Your task to perform on an android device: Go to notification settings Image 0: 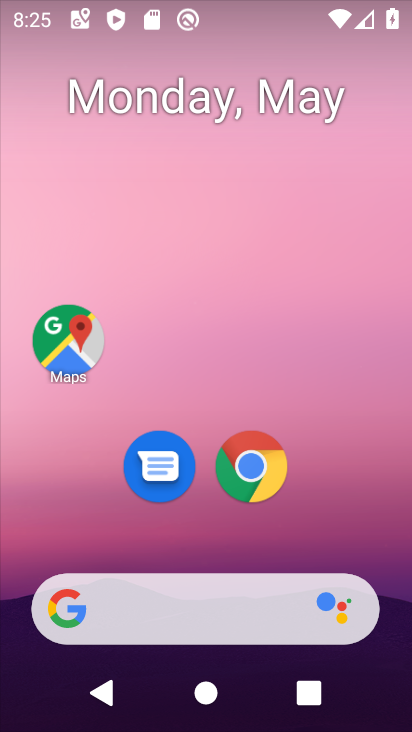
Step 0: press home button
Your task to perform on an android device: Go to notification settings Image 1: 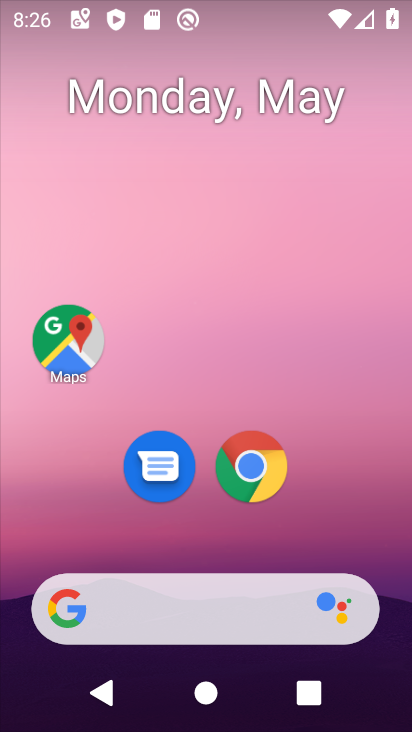
Step 1: drag from (234, 643) to (292, 153)
Your task to perform on an android device: Go to notification settings Image 2: 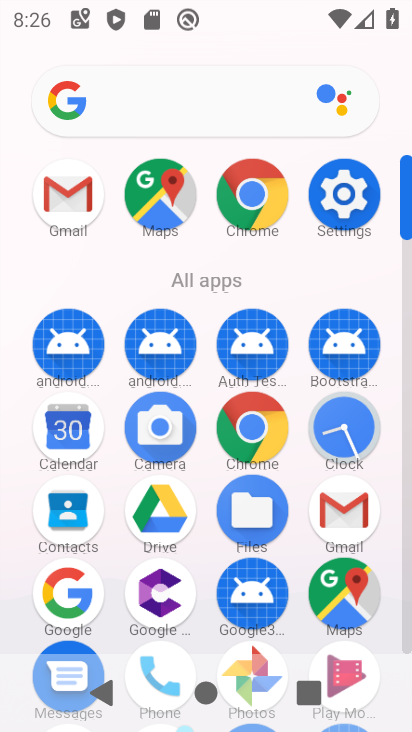
Step 2: click (336, 207)
Your task to perform on an android device: Go to notification settings Image 3: 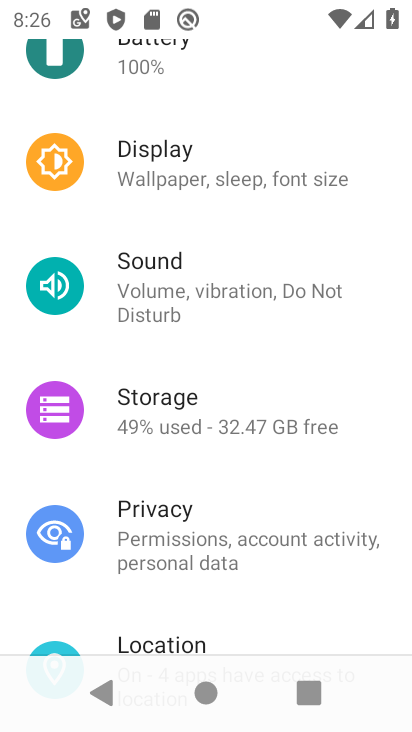
Step 3: click (201, 322)
Your task to perform on an android device: Go to notification settings Image 4: 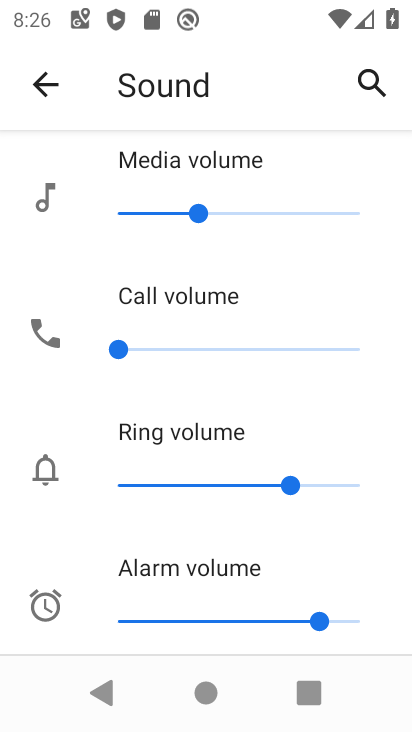
Step 4: drag from (197, 162) to (239, 555)
Your task to perform on an android device: Go to notification settings Image 5: 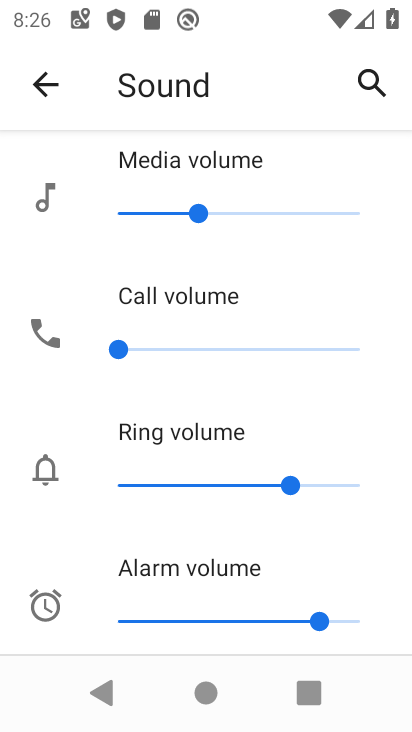
Step 5: click (67, 76)
Your task to perform on an android device: Go to notification settings Image 6: 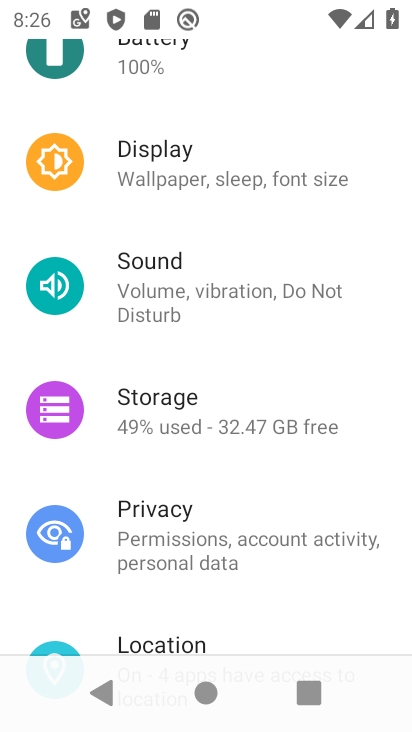
Step 6: drag from (169, 127) to (157, 461)
Your task to perform on an android device: Go to notification settings Image 7: 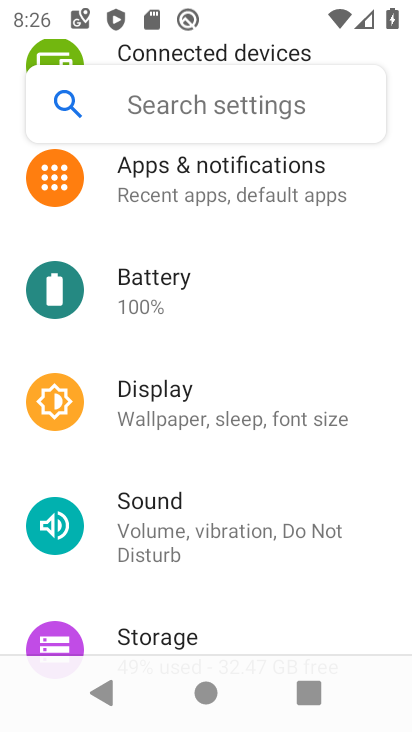
Step 7: click (260, 93)
Your task to perform on an android device: Go to notification settings Image 8: 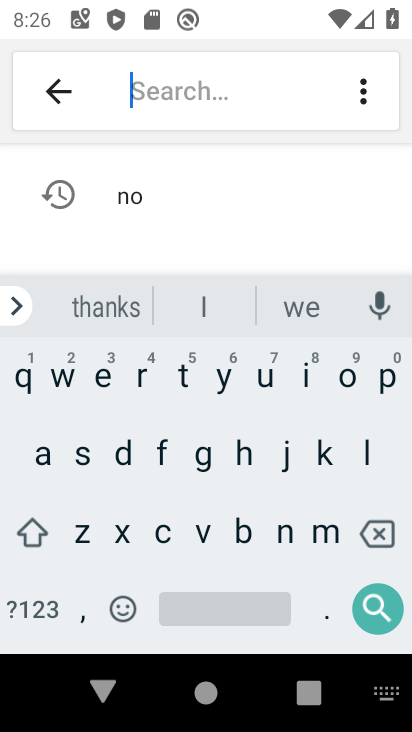
Step 8: click (287, 525)
Your task to perform on an android device: Go to notification settings Image 9: 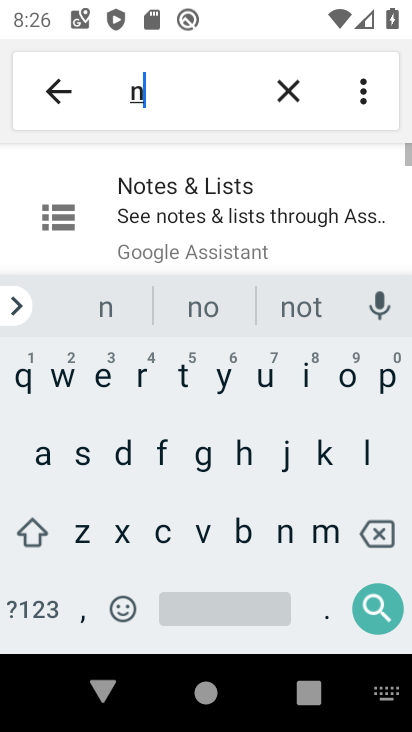
Step 9: click (344, 377)
Your task to perform on an android device: Go to notification settings Image 10: 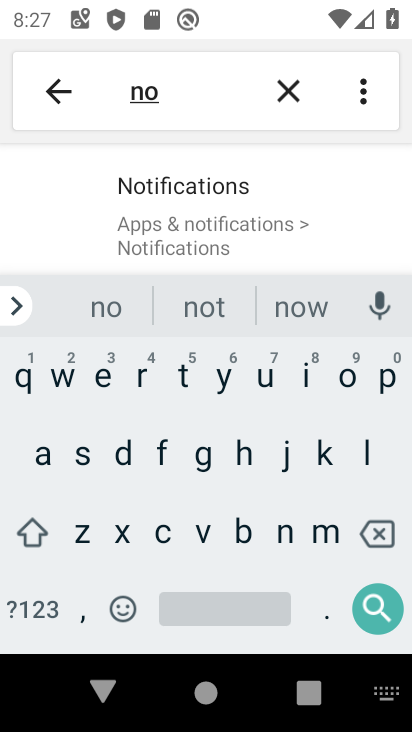
Step 10: click (142, 203)
Your task to perform on an android device: Go to notification settings Image 11: 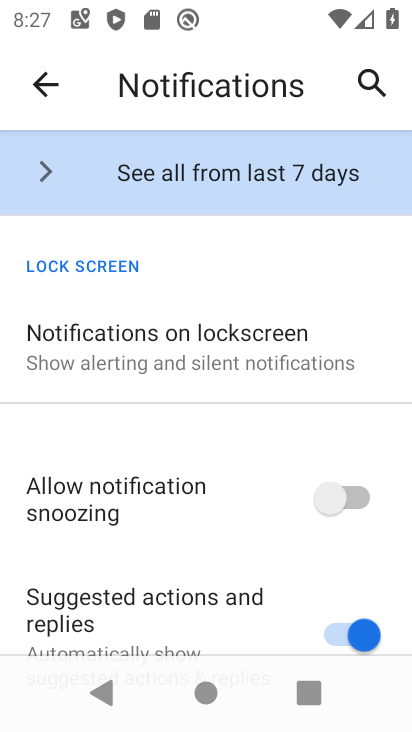
Step 11: click (155, 334)
Your task to perform on an android device: Go to notification settings Image 12: 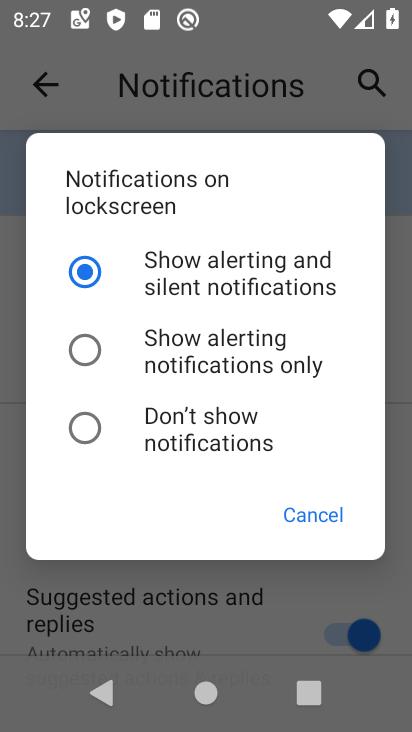
Step 12: task complete